Your task to perform on an android device: What's the weather going to be this weekend? Image 0: 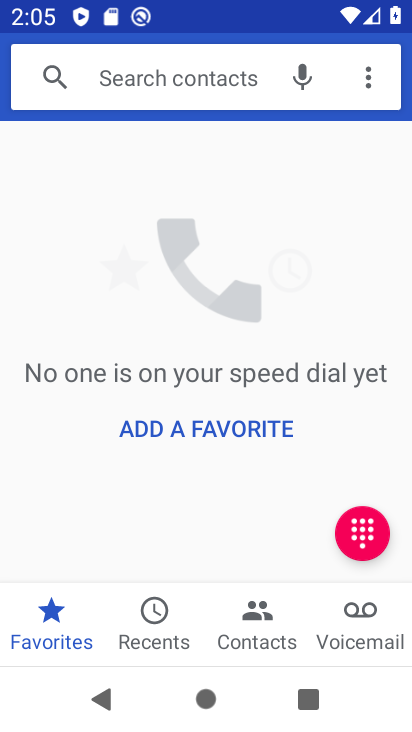
Step 0: press home button
Your task to perform on an android device: What's the weather going to be this weekend? Image 1: 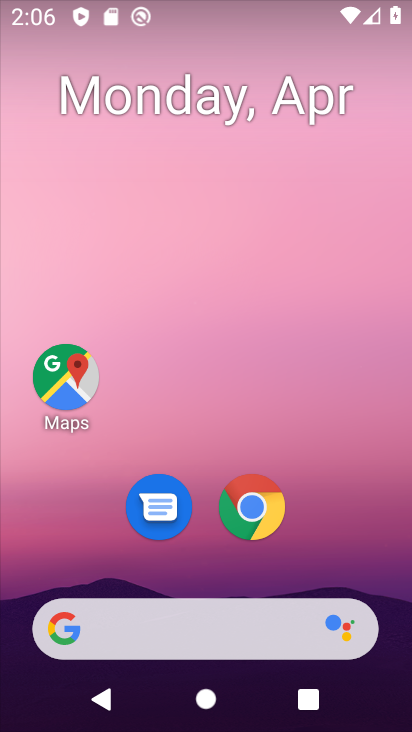
Step 1: drag from (361, 441) to (342, 125)
Your task to perform on an android device: What's the weather going to be this weekend? Image 2: 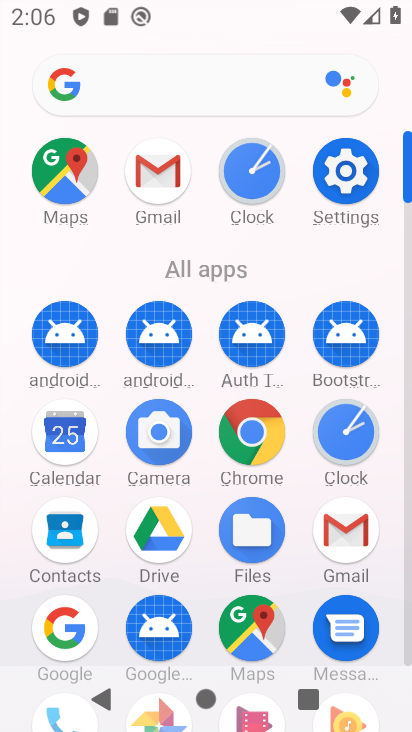
Step 2: click (65, 435)
Your task to perform on an android device: What's the weather going to be this weekend? Image 3: 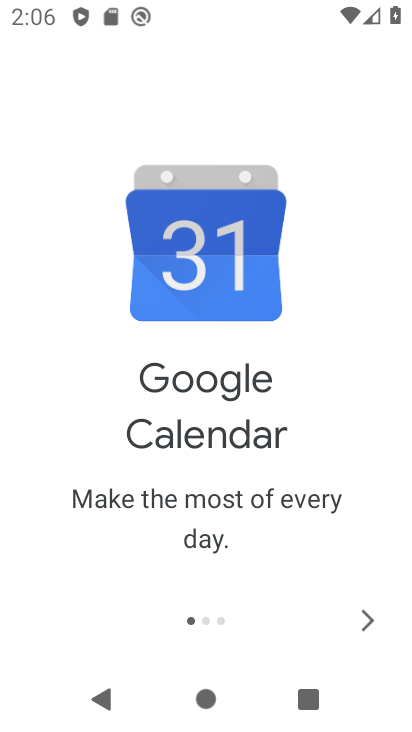
Step 3: click (367, 618)
Your task to perform on an android device: What's the weather going to be this weekend? Image 4: 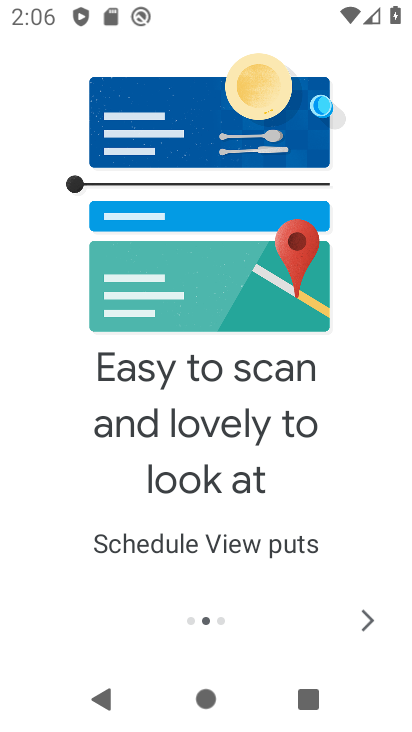
Step 4: click (367, 618)
Your task to perform on an android device: What's the weather going to be this weekend? Image 5: 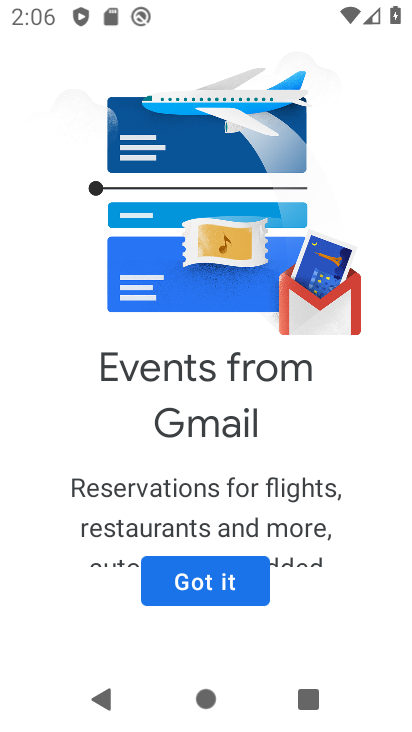
Step 5: click (183, 583)
Your task to perform on an android device: What's the weather going to be this weekend? Image 6: 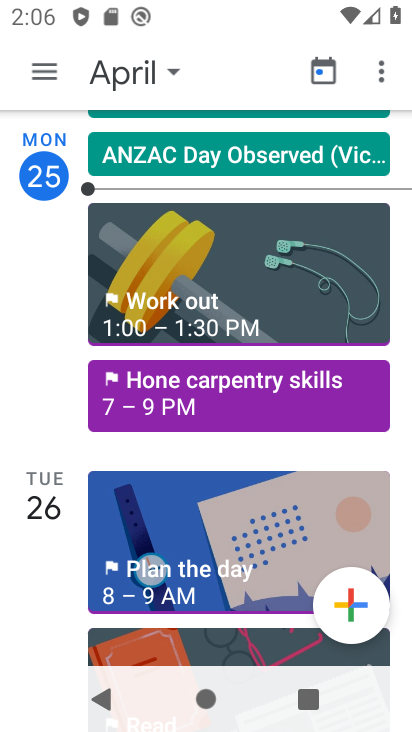
Step 6: click (46, 67)
Your task to perform on an android device: What's the weather going to be this weekend? Image 7: 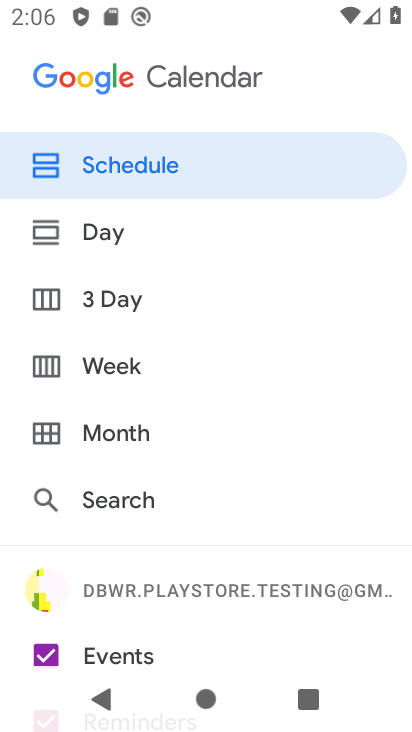
Step 7: click (108, 356)
Your task to perform on an android device: What's the weather going to be this weekend? Image 8: 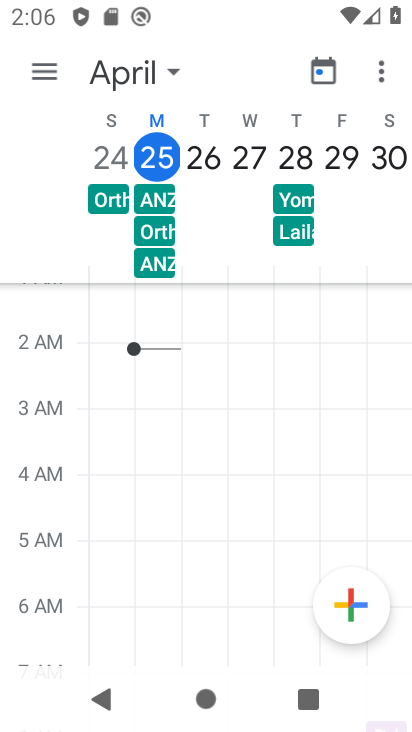
Step 8: drag from (214, 621) to (269, 316)
Your task to perform on an android device: What's the weather going to be this weekend? Image 9: 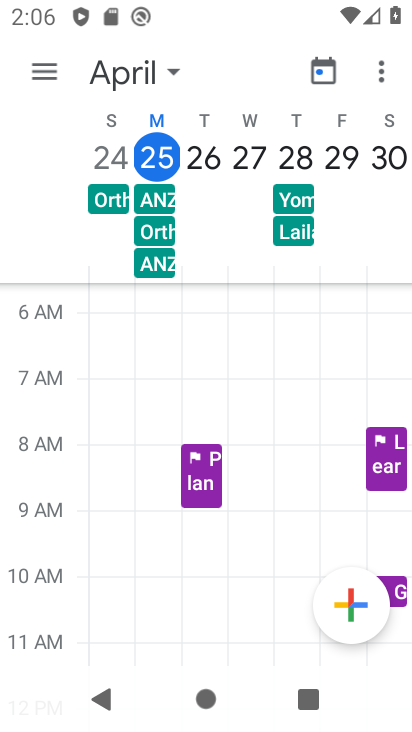
Step 9: drag from (238, 633) to (254, 268)
Your task to perform on an android device: What's the weather going to be this weekend? Image 10: 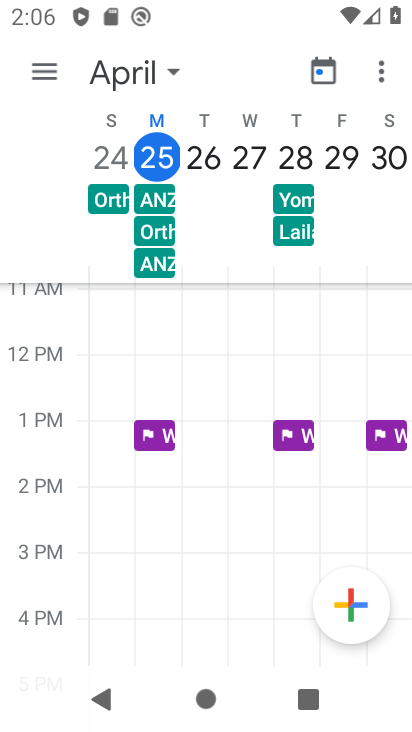
Step 10: click (244, 343)
Your task to perform on an android device: What's the weather going to be this weekend? Image 11: 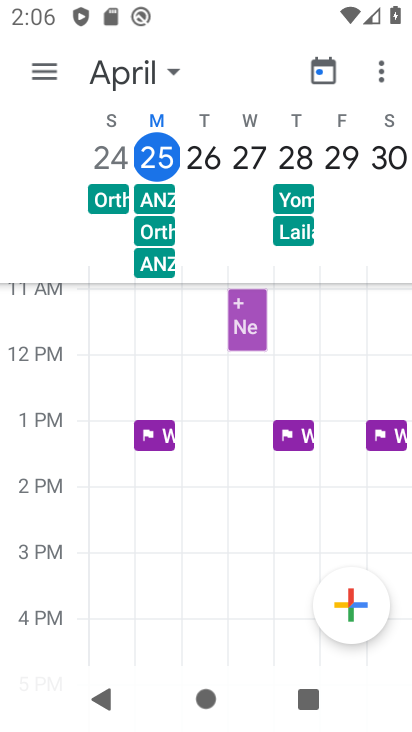
Step 11: task complete